Your task to perform on an android device: What's the weather going to be this weekend? Image 0: 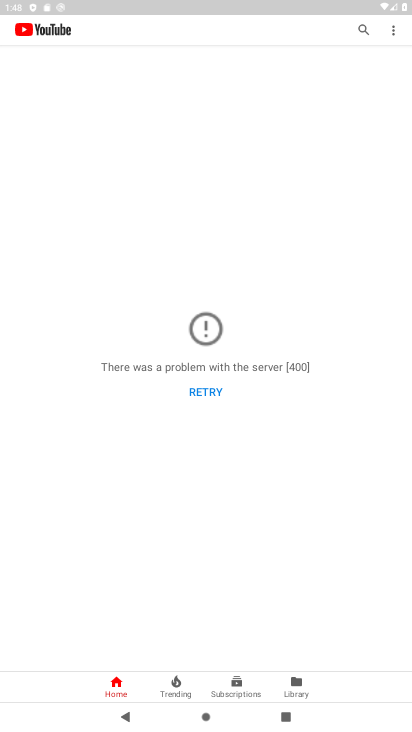
Step 0: press home button
Your task to perform on an android device: What's the weather going to be this weekend? Image 1: 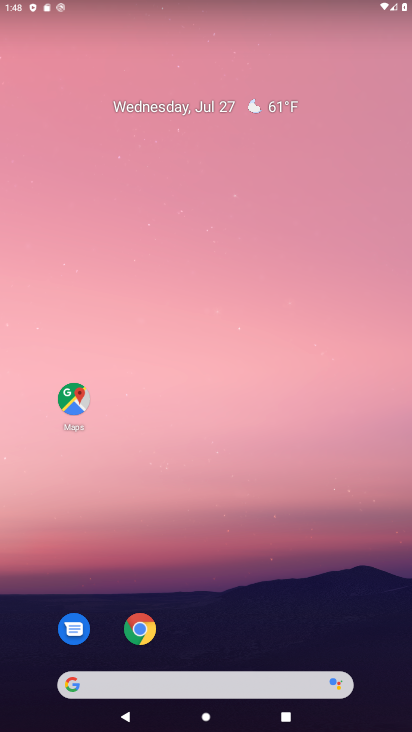
Step 1: click (143, 627)
Your task to perform on an android device: What's the weather going to be this weekend? Image 2: 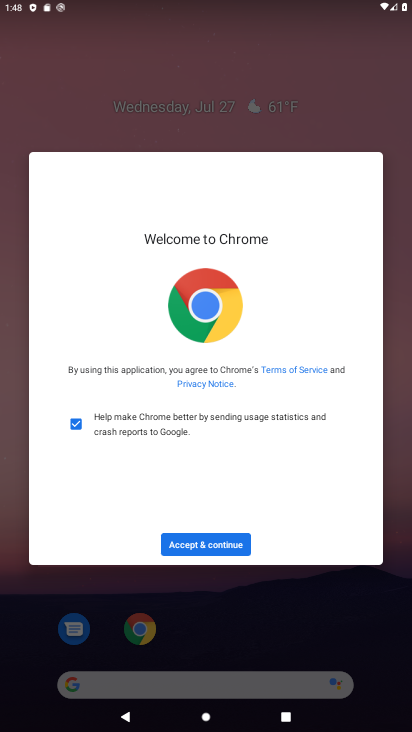
Step 2: click (213, 550)
Your task to perform on an android device: What's the weather going to be this weekend? Image 3: 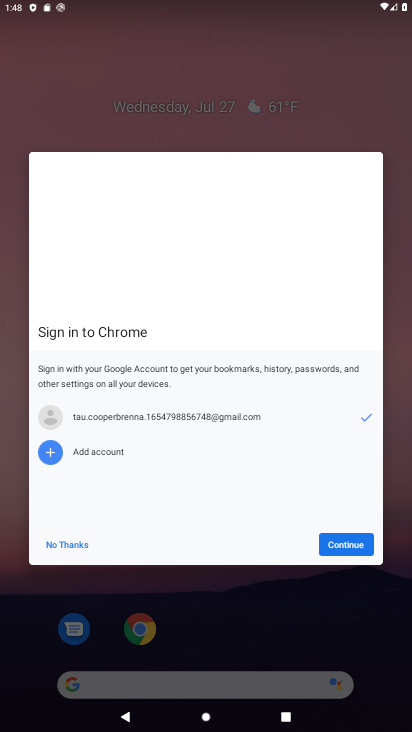
Step 3: click (342, 546)
Your task to perform on an android device: What's the weather going to be this weekend? Image 4: 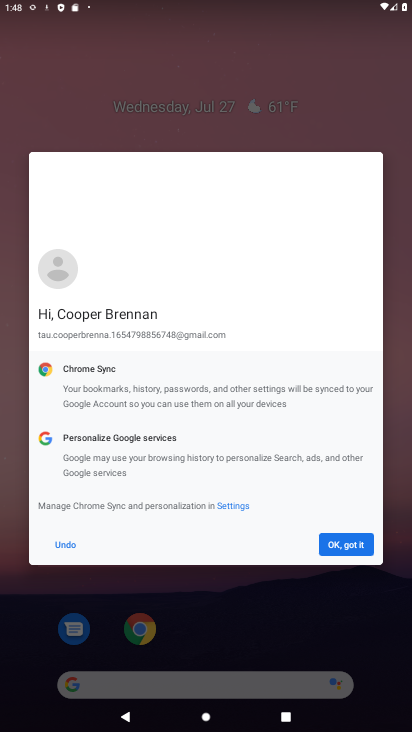
Step 4: click (342, 546)
Your task to perform on an android device: What's the weather going to be this weekend? Image 5: 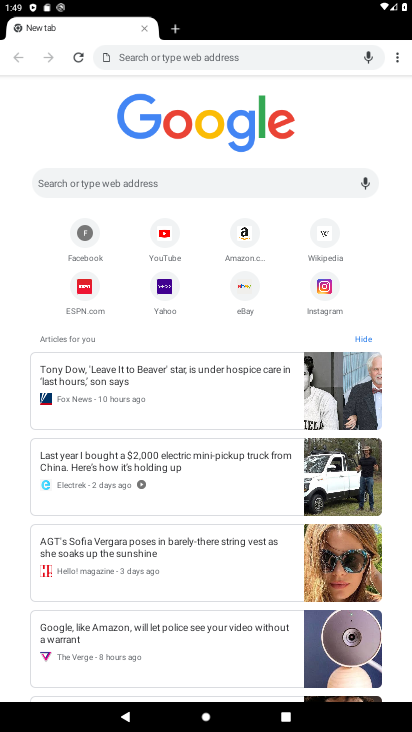
Step 5: type "What's the weather going to be this weekend?"
Your task to perform on an android device: What's the weather going to be this weekend? Image 6: 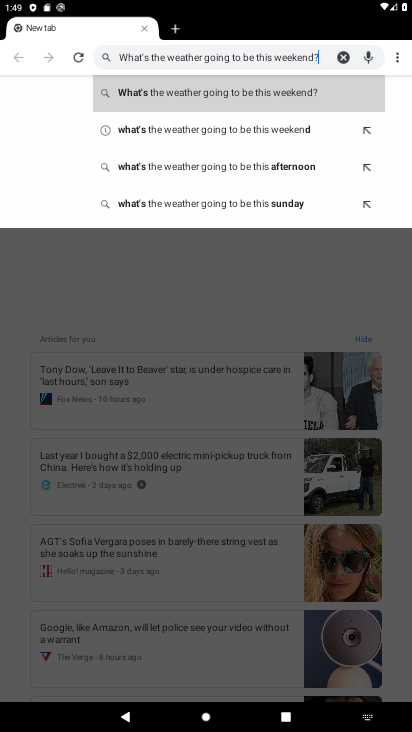
Step 6: type ""
Your task to perform on an android device: What's the weather going to be this weekend? Image 7: 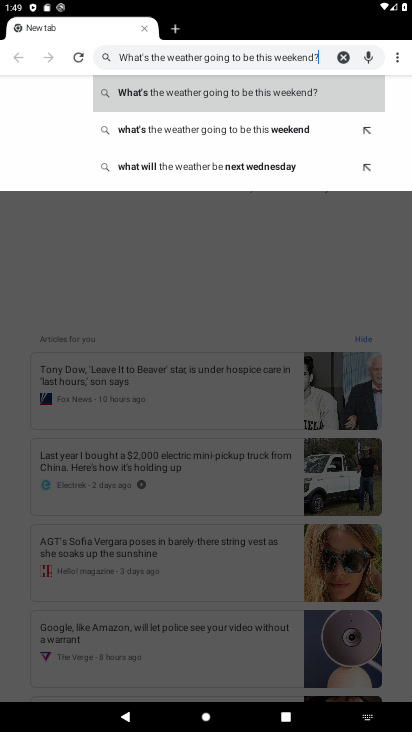
Step 7: click (226, 96)
Your task to perform on an android device: What's the weather going to be this weekend? Image 8: 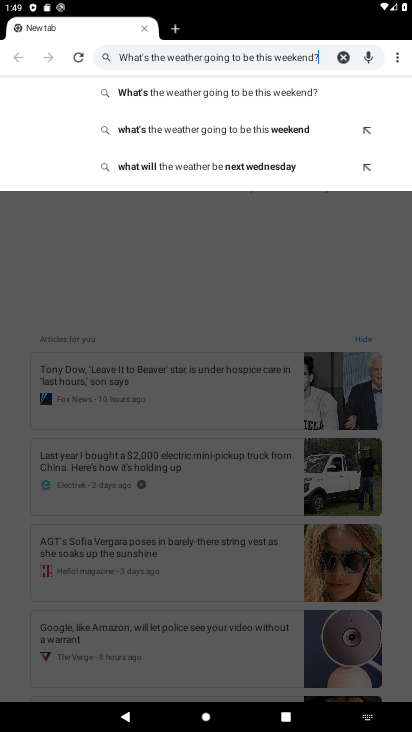
Step 8: click (226, 96)
Your task to perform on an android device: What's the weather going to be this weekend? Image 9: 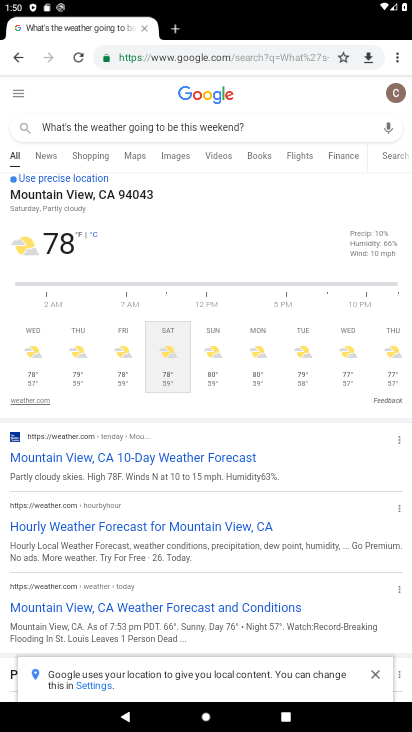
Step 9: task complete